Your task to perform on an android device: Search for Italian restaurants on Maps Image 0: 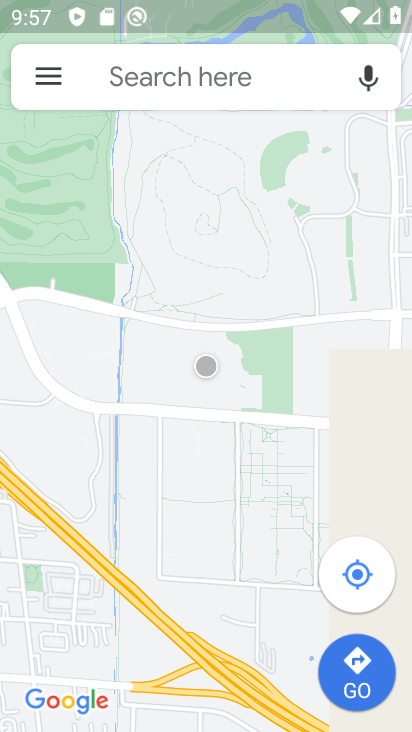
Step 0: click (250, 85)
Your task to perform on an android device: Search for Italian restaurants on Maps Image 1: 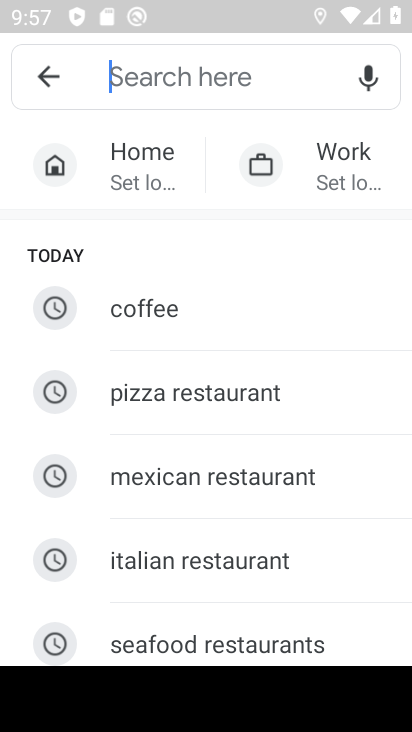
Step 1: type "italian restaurants"
Your task to perform on an android device: Search for Italian restaurants on Maps Image 2: 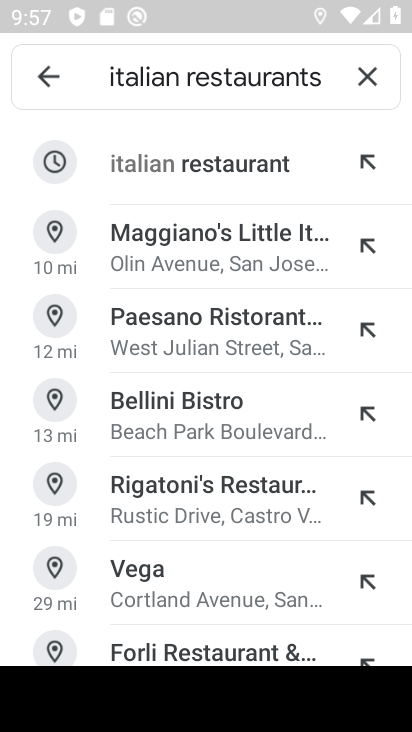
Step 2: click (254, 165)
Your task to perform on an android device: Search for Italian restaurants on Maps Image 3: 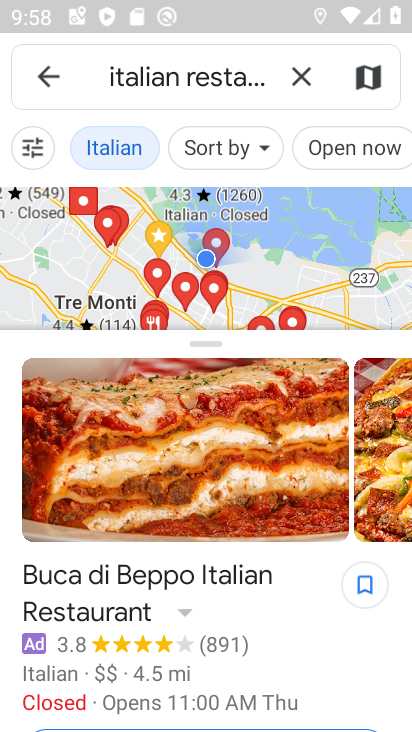
Step 3: task complete